Your task to perform on an android device: Open Chrome and go to settings Image 0: 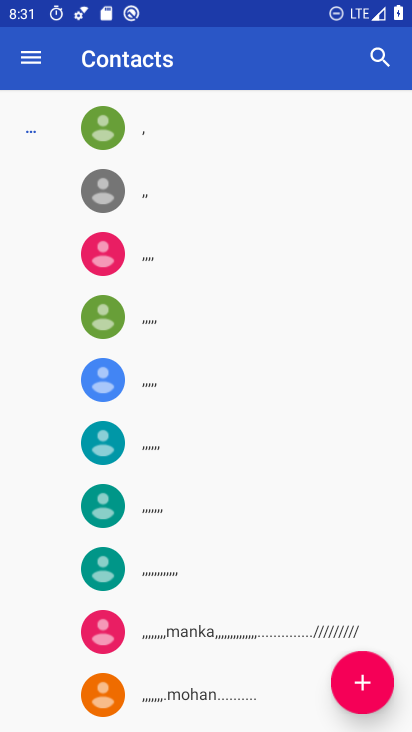
Step 0: press back button
Your task to perform on an android device: Open Chrome and go to settings Image 1: 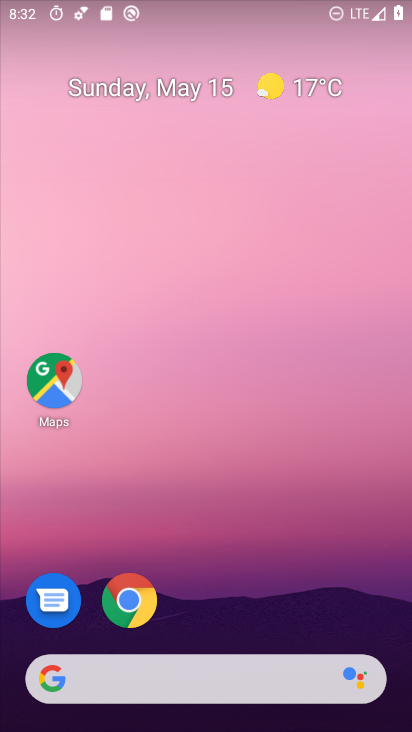
Step 1: click (130, 599)
Your task to perform on an android device: Open Chrome and go to settings Image 2: 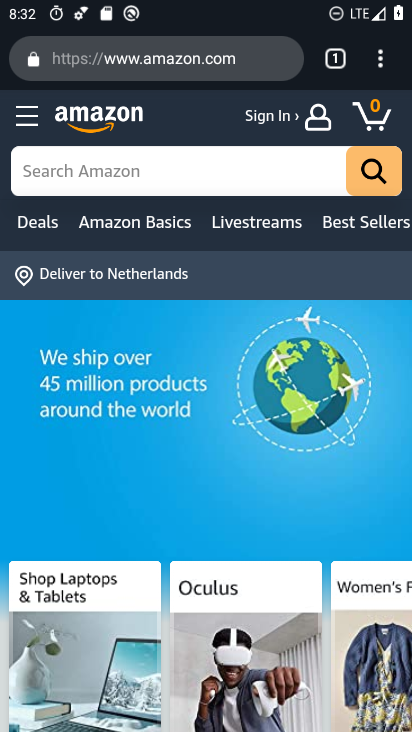
Step 2: click (380, 61)
Your task to perform on an android device: Open Chrome and go to settings Image 3: 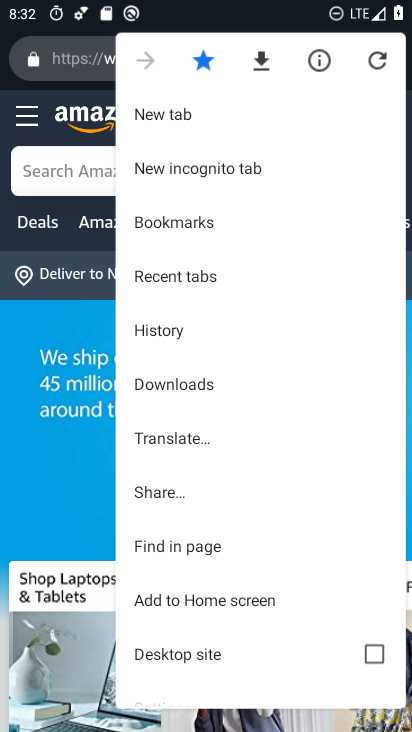
Step 3: drag from (211, 569) to (258, 439)
Your task to perform on an android device: Open Chrome and go to settings Image 4: 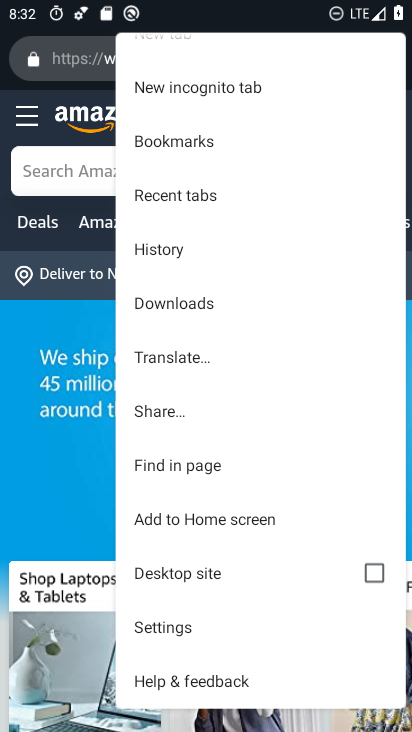
Step 4: click (174, 624)
Your task to perform on an android device: Open Chrome and go to settings Image 5: 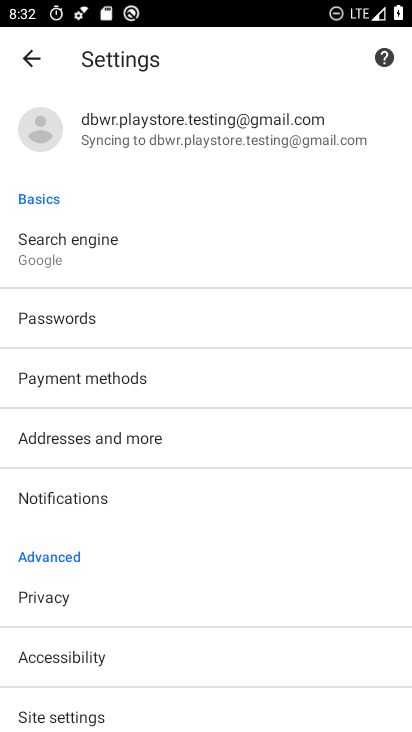
Step 5: task complete